Your task to perform on an android device: turn notification dots off Image 0: 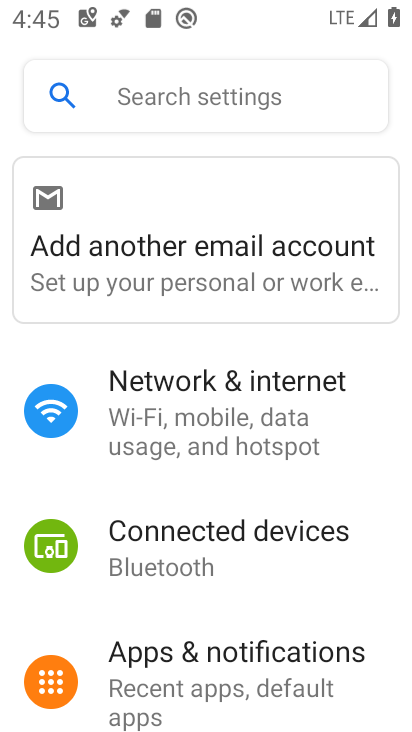
Step 0: click (273, 668)
Your task to perform on an android device: turn notification dots off Image 1: 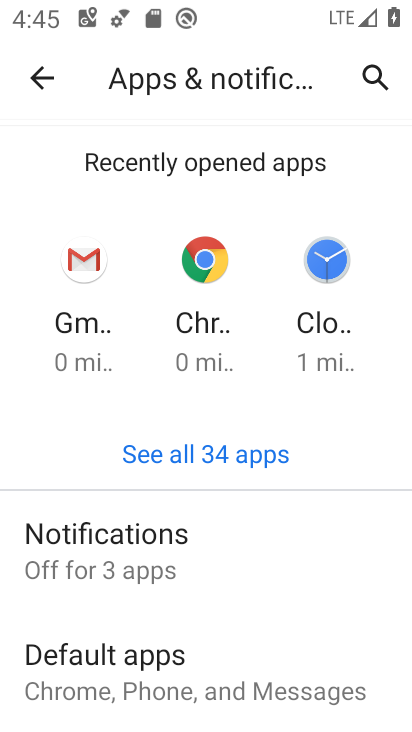
Step 1: click (274, 552)
Your task to perform on an android device: turn notification dots off Image 2: 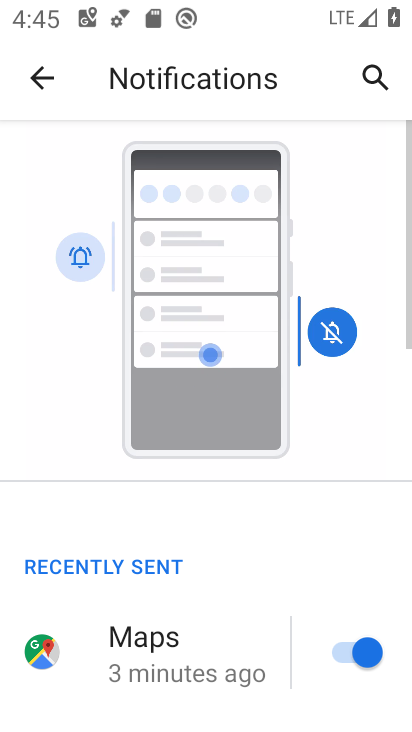
Step 2: drag from (235, 659) to (215, 100)
Your task to perform on an android device: turn notification dots off Image 3: 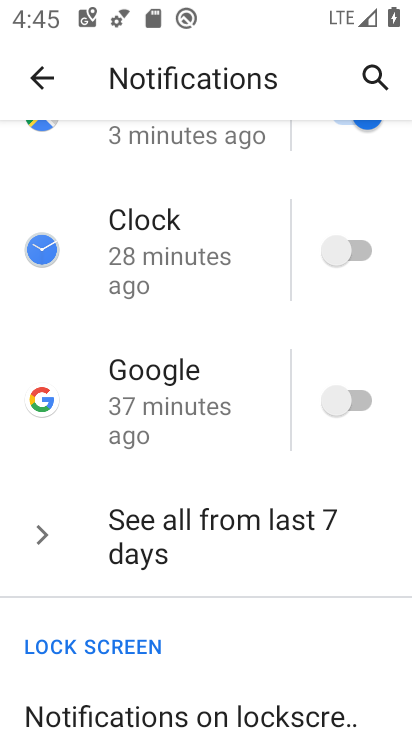
Step 3: drag from (229, 656) to (193, 229)
Your task to perform on an android device: turn notification dots off Image 4: 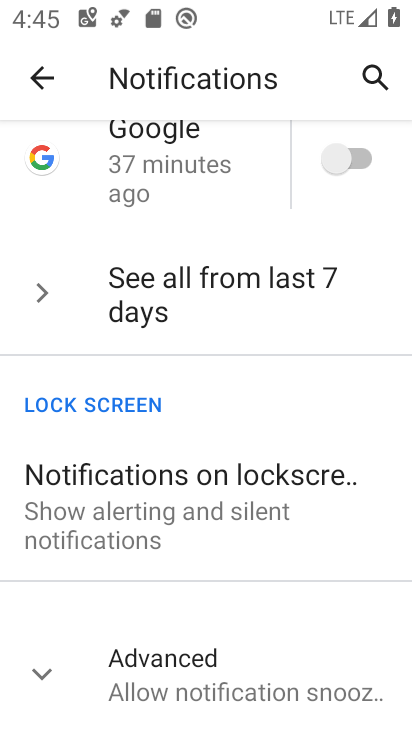
Step 4: click (224, 539)
Your task to perform on an android device: turn notification dots off Image 5: 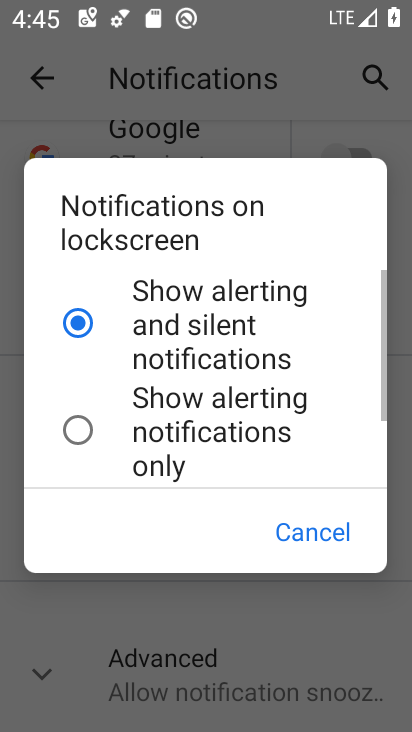
Step 5: click (259, 664)
Your task to perform on an android device: turn notification dots off Image 6: 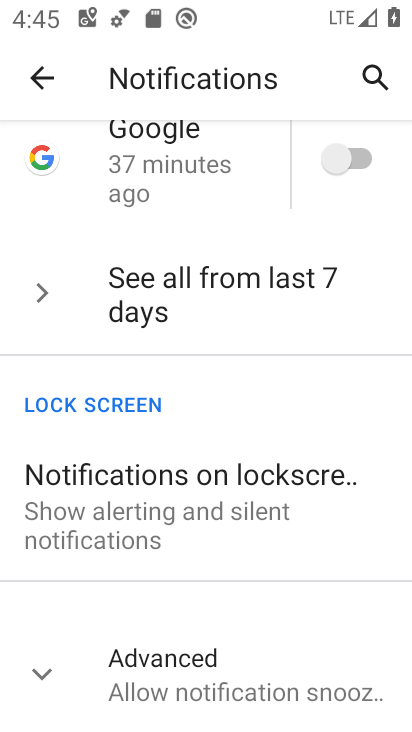
Step 6: click (250, 686)
Your task to perform on an android device: turn notification dots off Image 7: 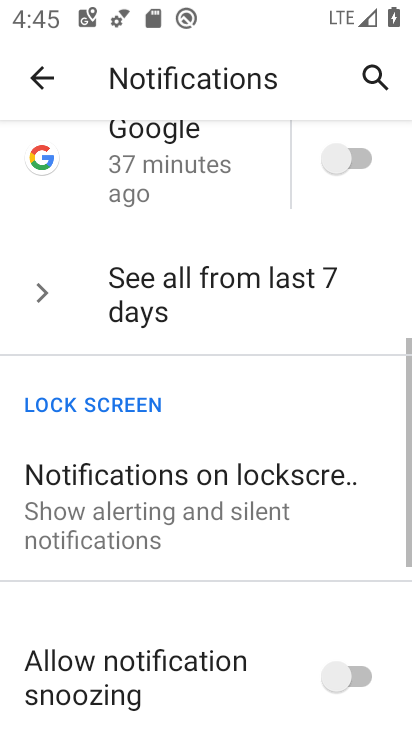
Step 7: task complete